Your task to perform on an android device: toggle data saver in the chrome app Image 0: 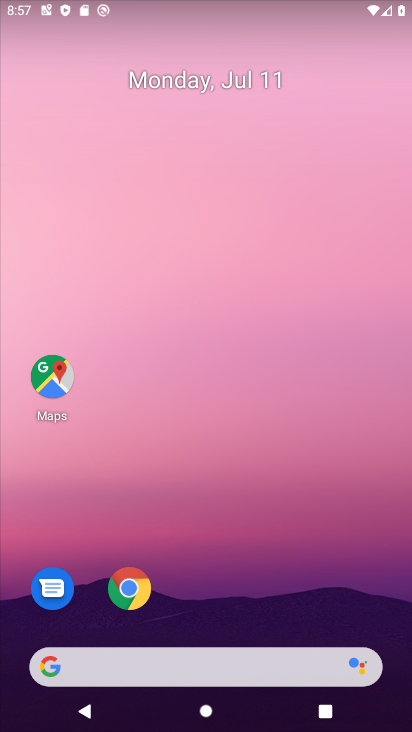
Step 0: click (139, 588)
Your task to perform on an android device: toggle data saver in the chrome app Image 1: 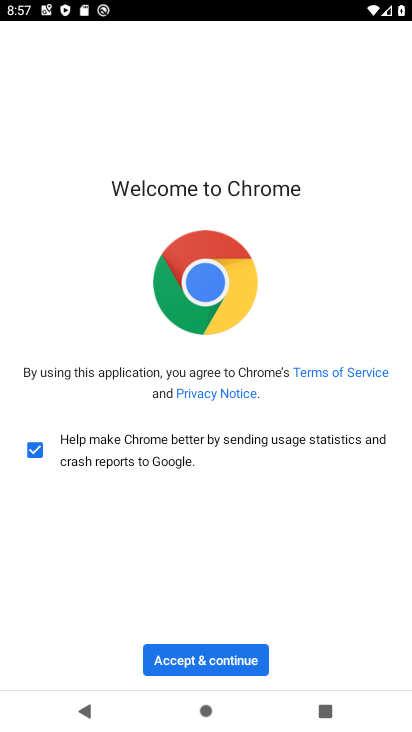
Step 1: click (193, 676)
Your task to perform on an android device: toggle data saver in the chrome app Image 2: 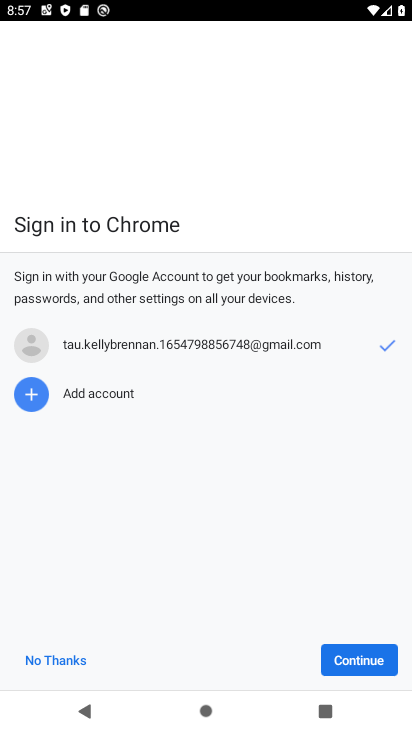
Step 2: click (370, 665)
Your task to perform on an android device: toggle data saver in the chrome app Image 3: 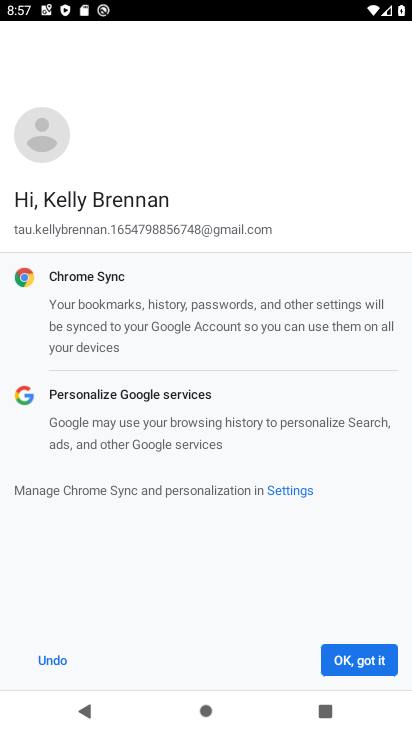
Step 3: click (369, 661)
Your task to perform on an android device: toggle data saver in the chrome app Image 4: 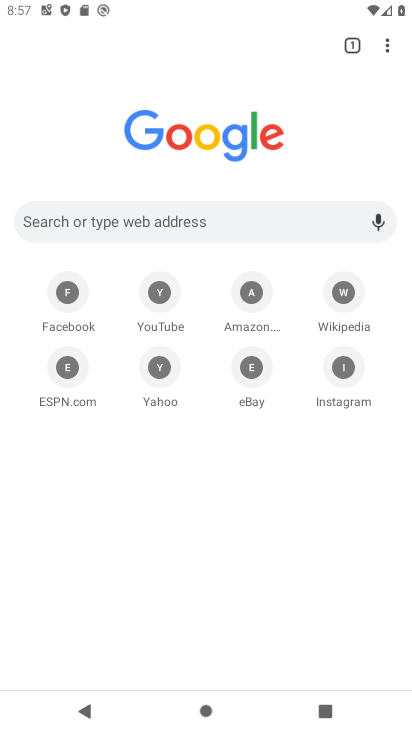
Step 4: click (385, 39)
Your task to perform on an android device: toggle data saver in the chrome app Image 5: 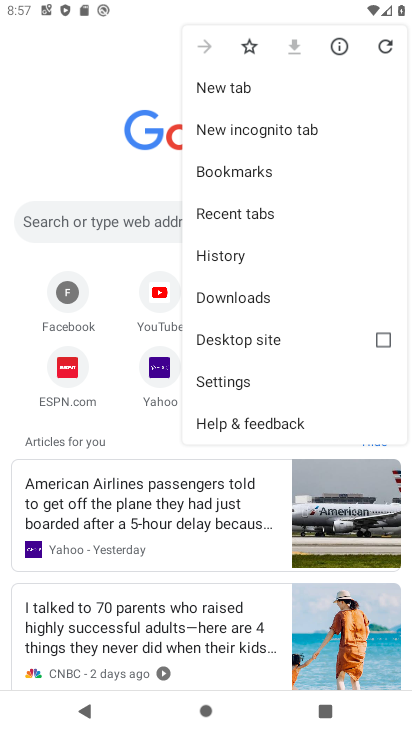
Step 5: click (247, 382)
Your task to perform on an android device: toggle data saver in the chrome app Image 6: 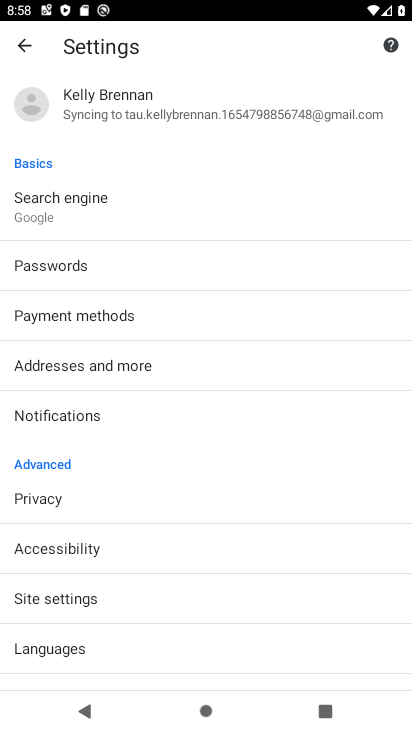
Step 6: drag from (121, 611) to (237, 117)
Your task to perform on an android device: toggle data saver in the chrome app Image 7: 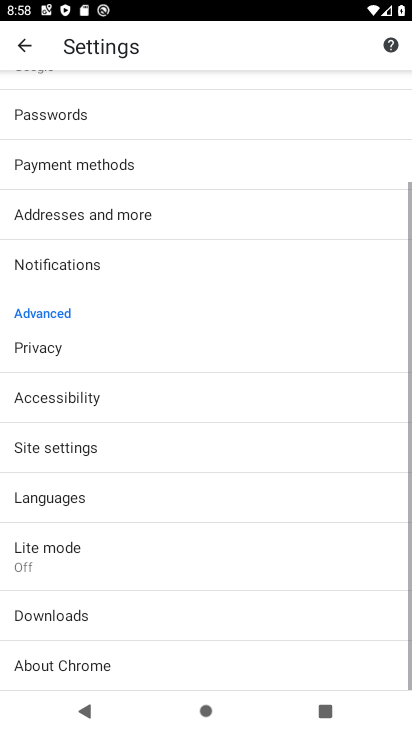
Step 7: click (40, 547)
Your task to perform on an android device: toggle data saver in the chrome app Image 8: 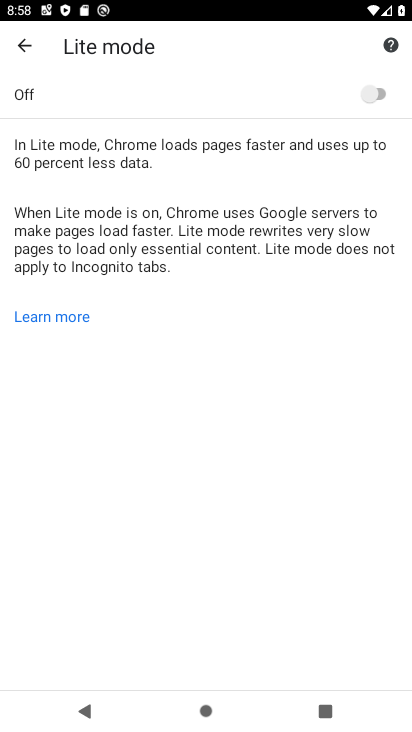
Step 8: click (375, 92)
Your task to perform on an android device: toggle data saver in the chrome app Image 9: 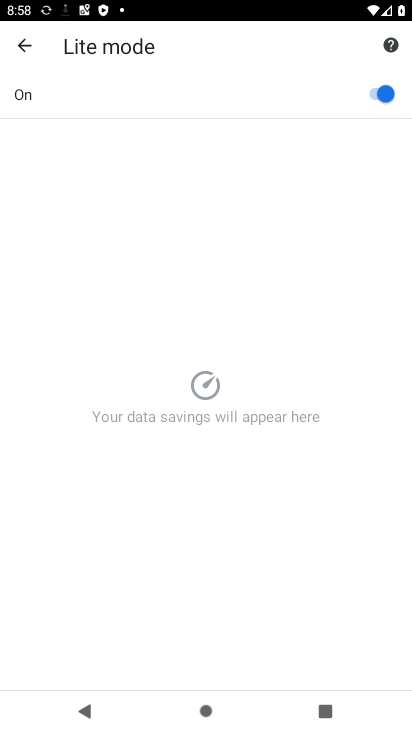
Step 9: task complete